Your task to perform on an android device: What is the recent news? Image 0: 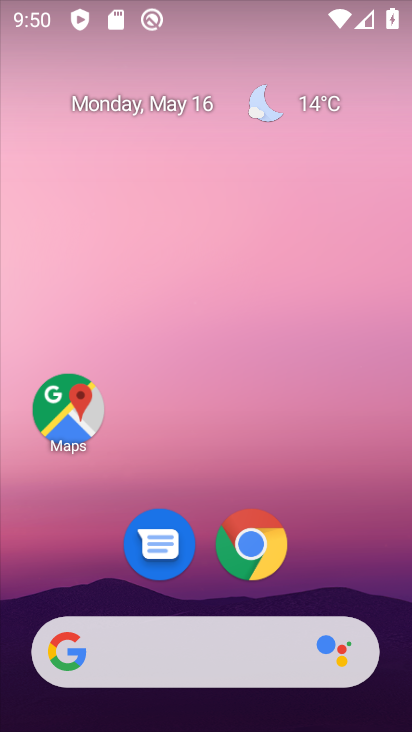
Step 0: click (276, 547)
Your task to perform on an android device: What is the recent news? Image 1: 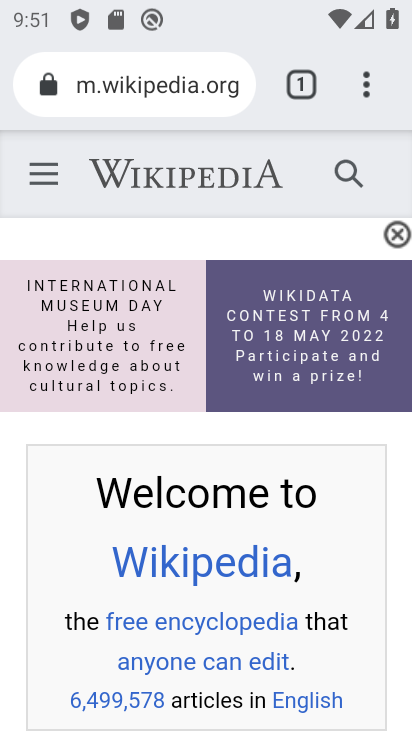
Step 1: click (199, 91)
Your task to perform on an android device: What is the recent news? Image 2: 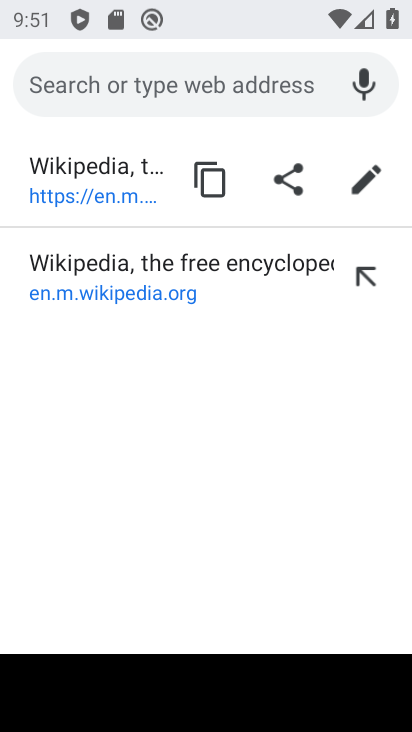
Step 2: type "what is the recent news"
Your task to perform on an android device: What is the recent news? Image 3: 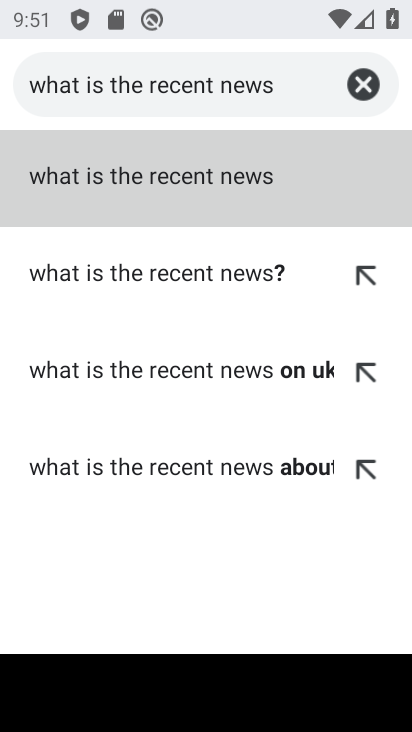
Step 3: click (72, 180)
Your task to perform on an android device: What is the recent news? Image 4: 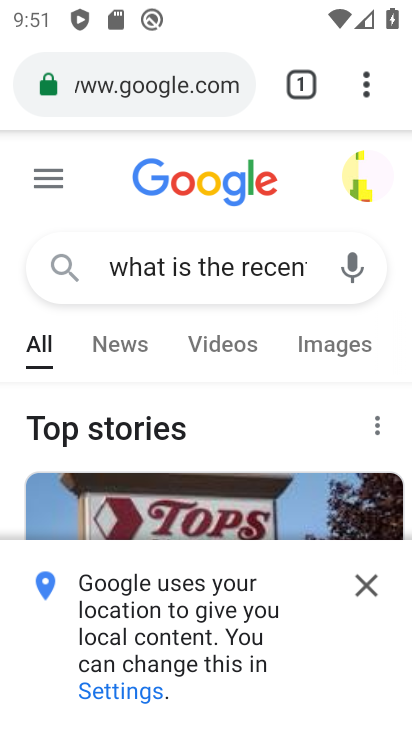
Step 4: click (366, 595)
Your task to perform on an android device: What is the recent news? Image 5: 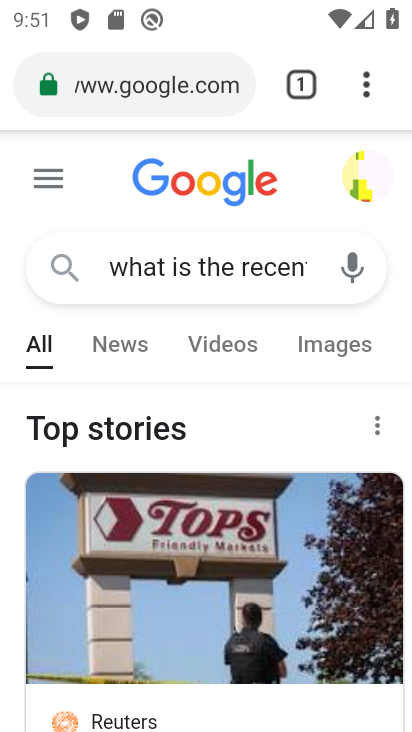
Step 5: task complete